Your task to perform on an android device: What's on my calendar tomorrow? Image 0: 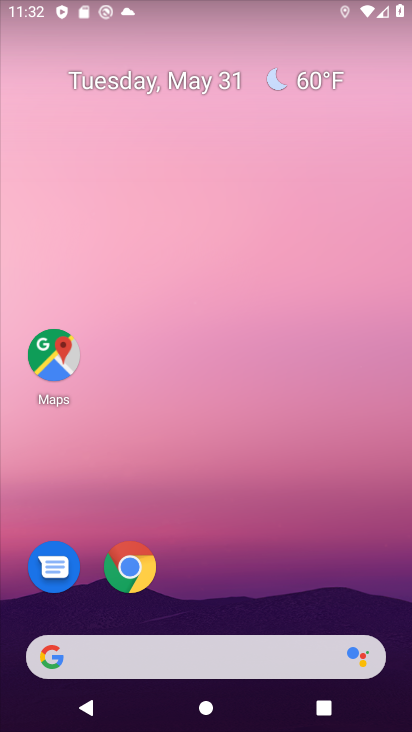
Step 0: drag from (247, 641) to (233, 69)
Your task to perform on an android device: What's on my calendar tomorrow? Image 1: 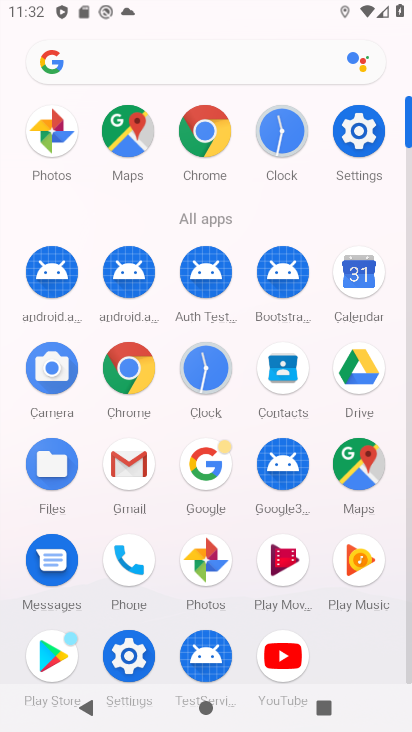
Step 1: click (361, 264)
Your task to perform on an android device: What's on my calendar tomorrow? Image 2: 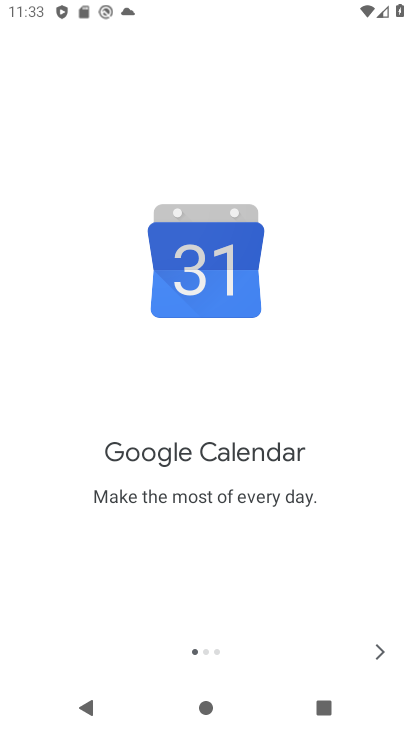
Step 2: click (368, 652)
Your task to perform on an android device: What's on my calendar tomorrow? Image 3: 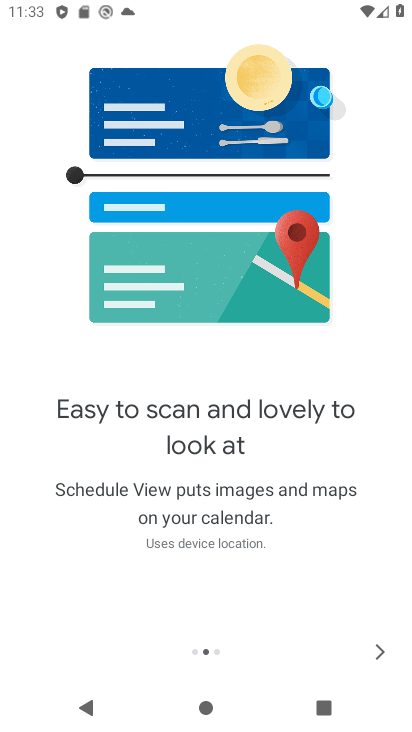
Step 3: click (368, 652)
Your task to perform on an android device: What's on my calendar tomorrow? Image 4: 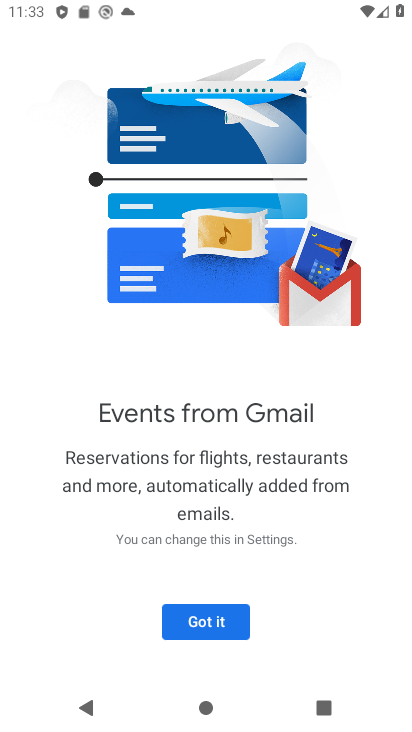
Step 4: click (220, 621)
Your task to perform on an android device: What's on my calendar tomorrow? Image 5: 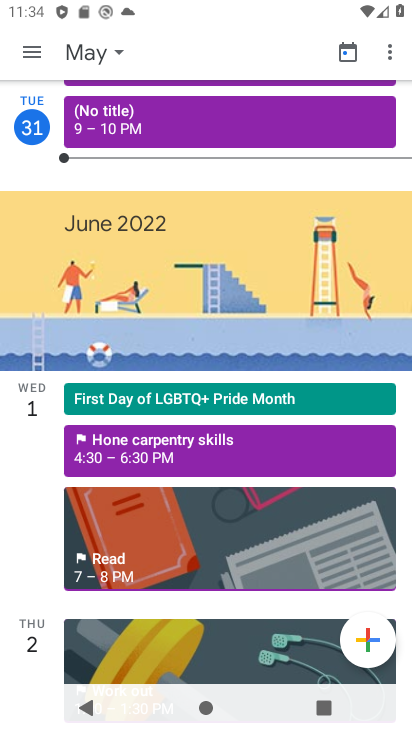
Step 5: task complete